Your task to perform on an android device: Go to Wikipedia Image 0: 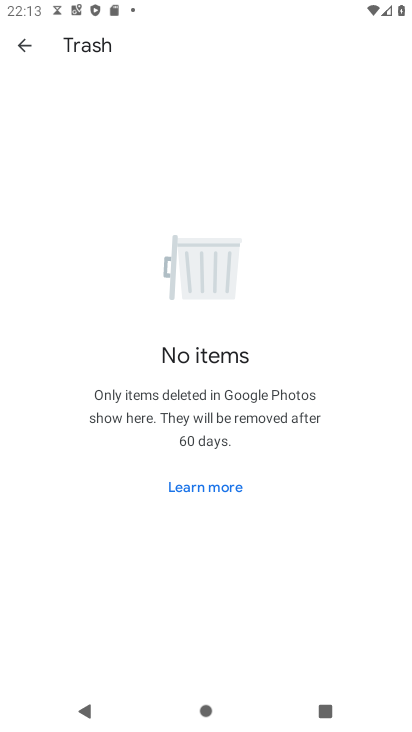
Step 0: press home button
Your task to perform on an android device: Go to Wikipedia Image 1: 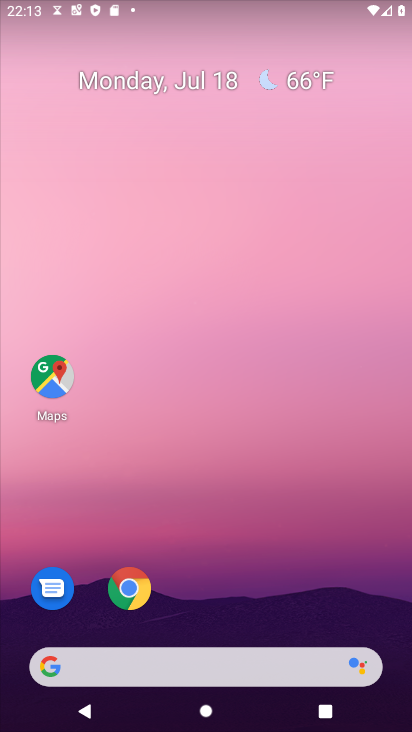
Step 1: click (132, 593)
Your task to perform on an android device: Go to Wikipedia Image 2: 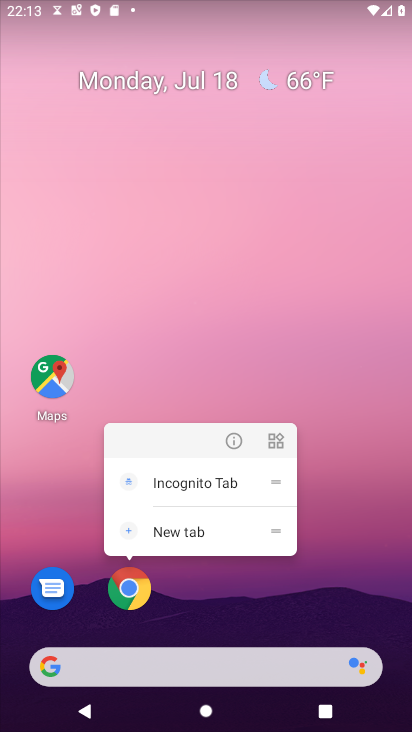
Step 2: click (118, 606)
Your task to perform on an android device: Go to Wikipedia Image 3: 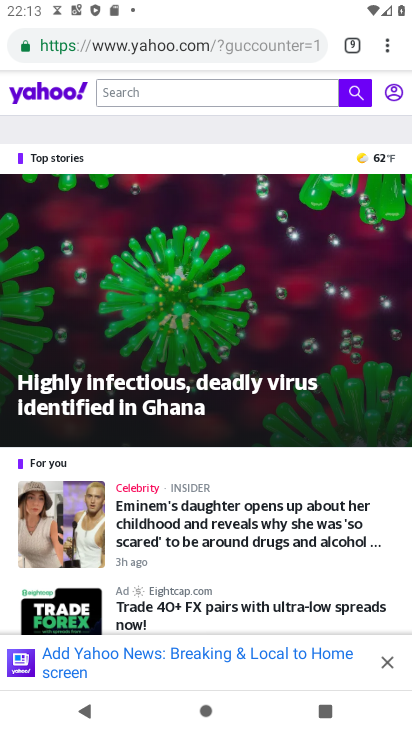
Step 3: drag from (390, 42) to (295, 93)
Your task to perform on an android device: Go to Wikipedia Image 4: 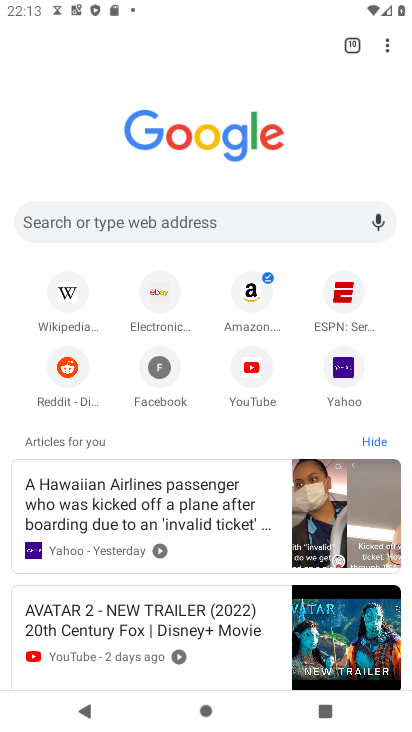
Step 4: click (70, 298)
Your task to perform on an android device: Go to Wikipedia Image 5: 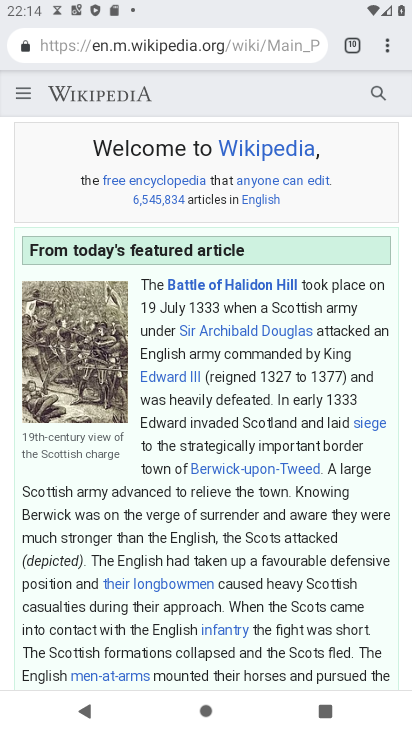
Step 5: task complete